Your task to perform on an android device: Go to display settings Image 0: 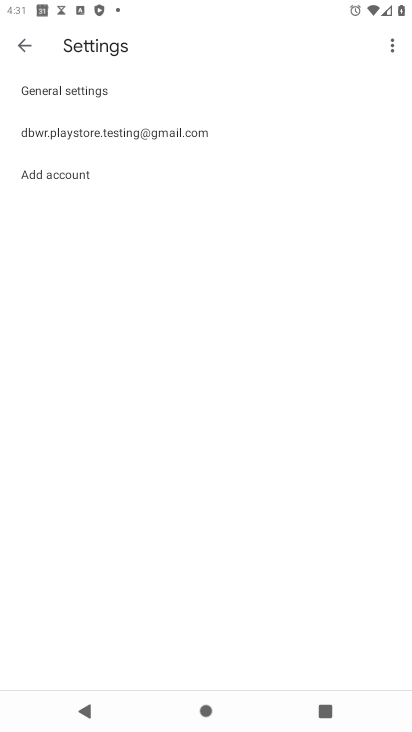
Step 0: press home button
Your task to perform on an android device: Go to display settings Image 1: 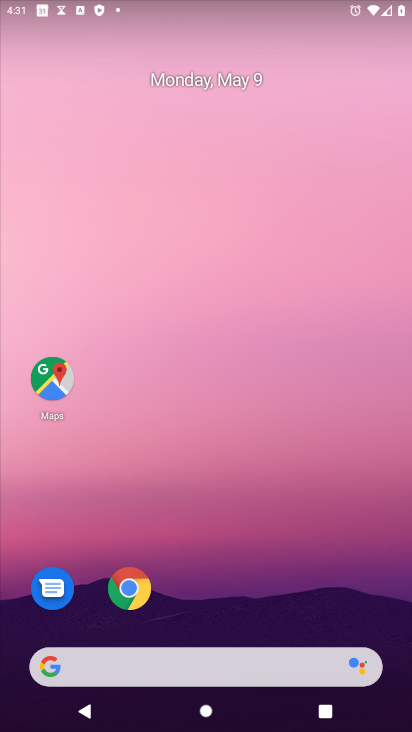
Step 1: drag from (241, 481) to (214, 108)
Your task to perform on an android device: Go to display settings Image 2: 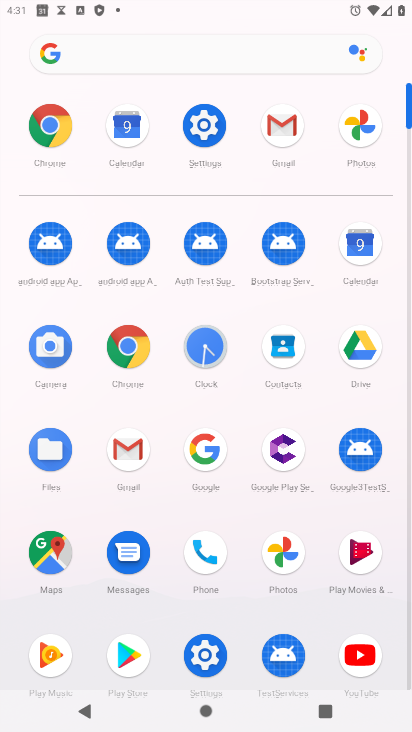
Step 2: click (208, 107)
Your task to perform on an android device: Go to display settings Image 3: 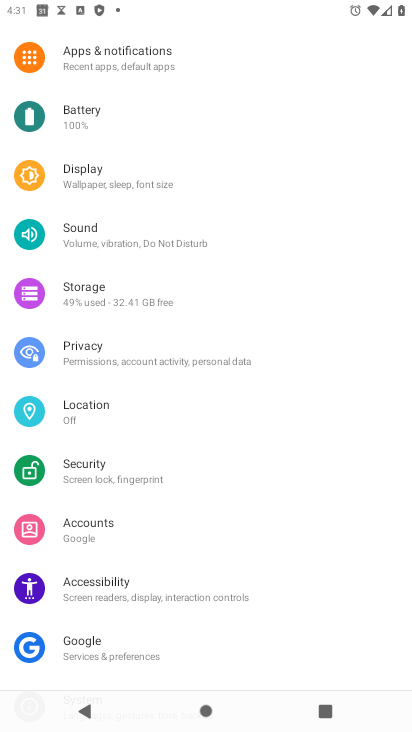
Step 3: click (120, 168)
Your task to perform on an android device: Go to display settings Image 4: 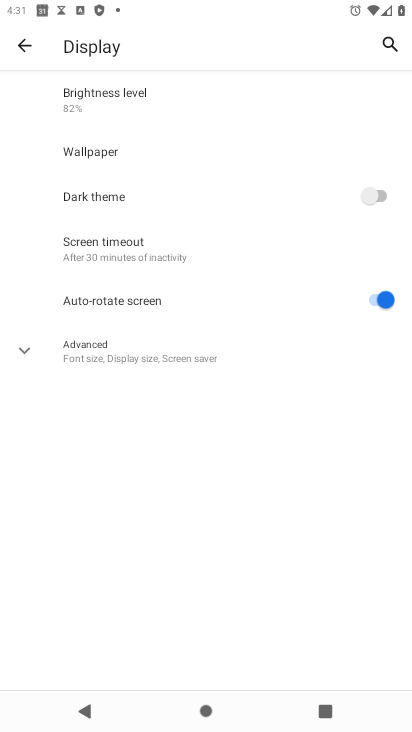
Step 4: task complete